Your task to perform on an android device: stop showing notifications on the lock screen Image 0: 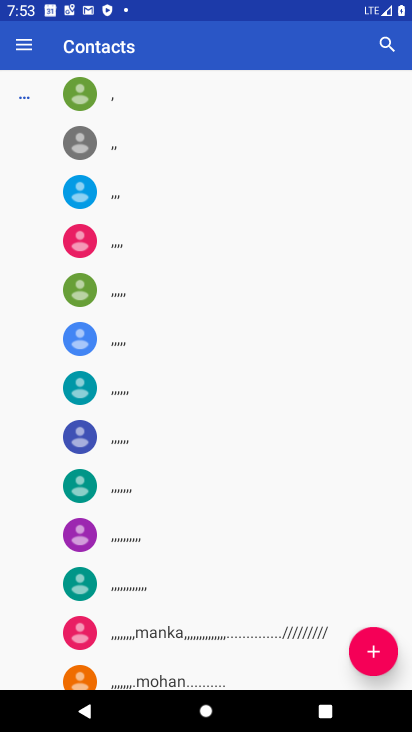
Step 0: press home button
Your task to perform on an android device: stop showing notifications on the lock screen Image 1: 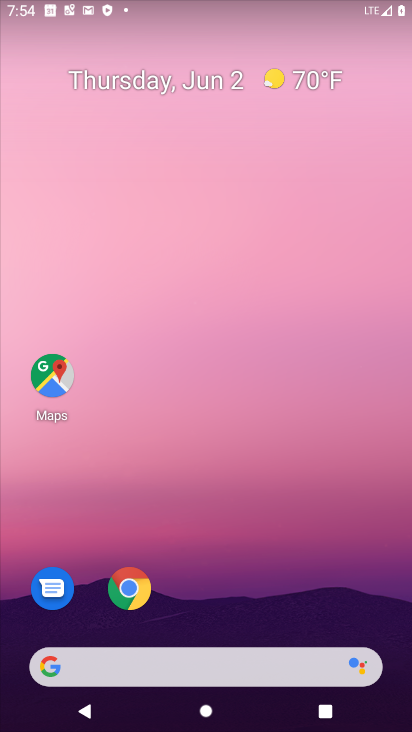
Step 1: drag from (212, 606) to (309, 52)
Your task to perform on an android device: stop showing notifications on the lock screen Image 2: 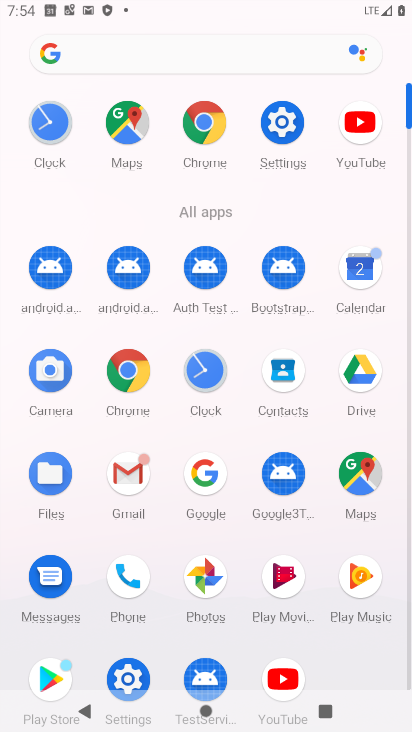
Step 2: click (274, 148)
Your task to perform on an android device: stop showing notifications on the lock screen Image 3: 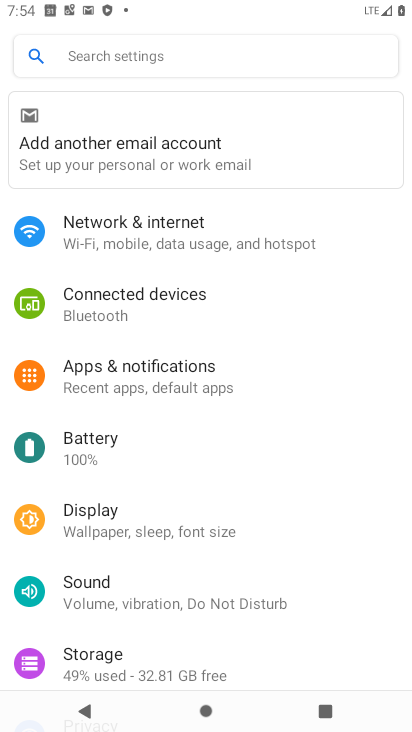
Step 3: click (171, 378)
Your task to perform on an android device: stop showing notifications on the lock screen Image 4: 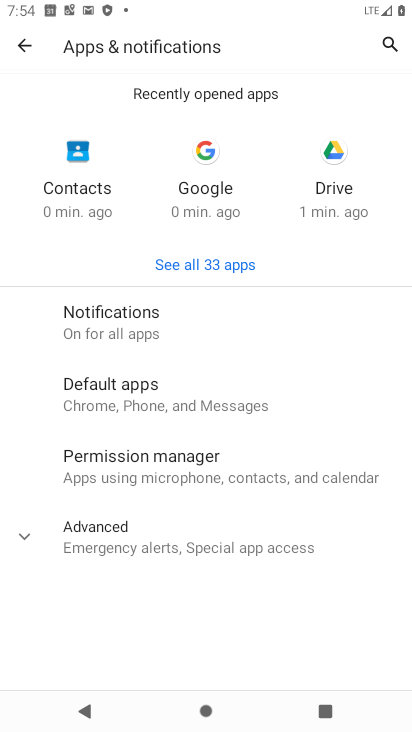
Step 4: click (110, 326)
Your task to perform on an android device: stop showing notifications on the lock screen Image 5: 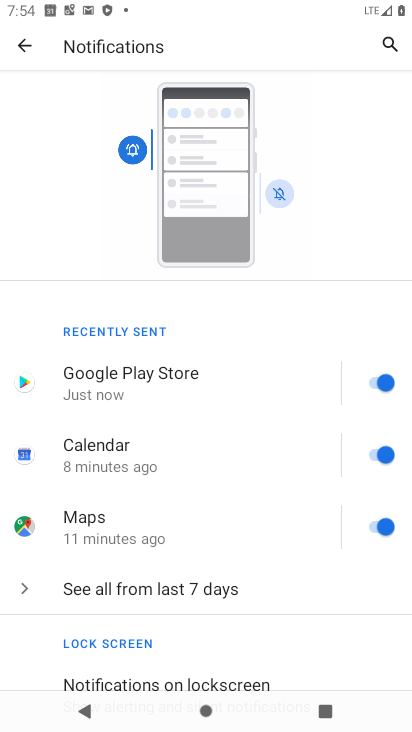
Step 5: drag from (176, 580) to (227, 261)
Your task to perform on an android device: stop showing notifications on the lock screen Image 6: 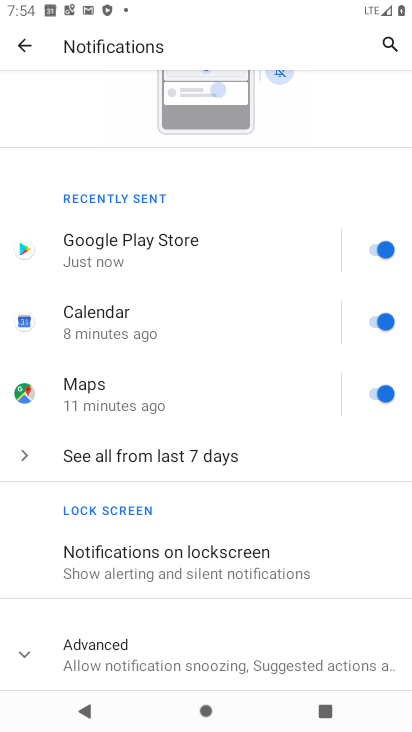
Step 6: click (171, 579)
Your task to perform on an android device: stop showing notifications on the lock screen Image 7: 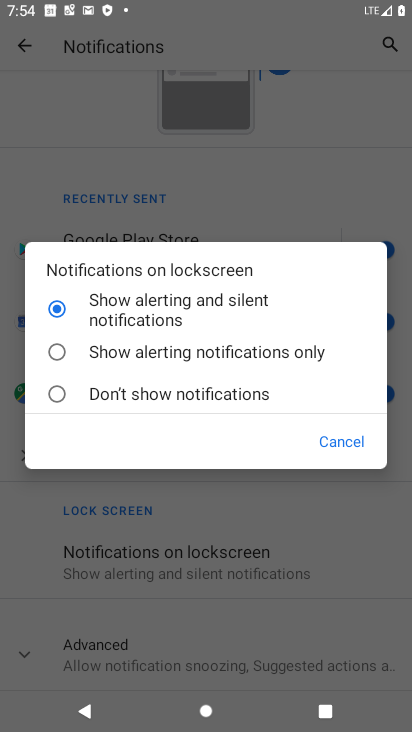
Step 7: click (139, 399)
Your task to perform on an android device: stop showing notifications on the lock screen Image 8: 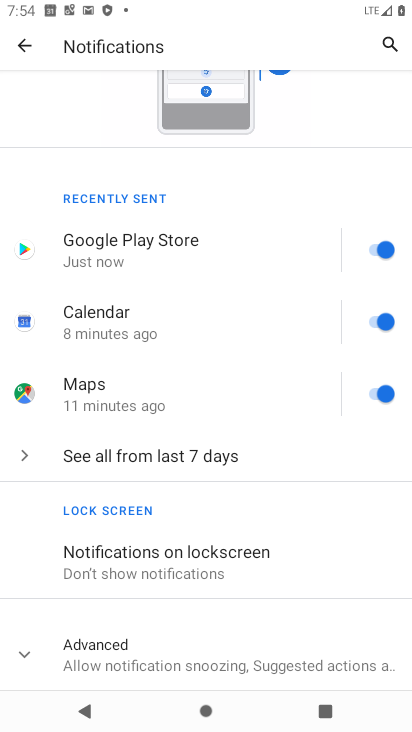
Step 8: task complete